Your task to perform on an android device: Open calendar and show me the third week of next month Image 0: 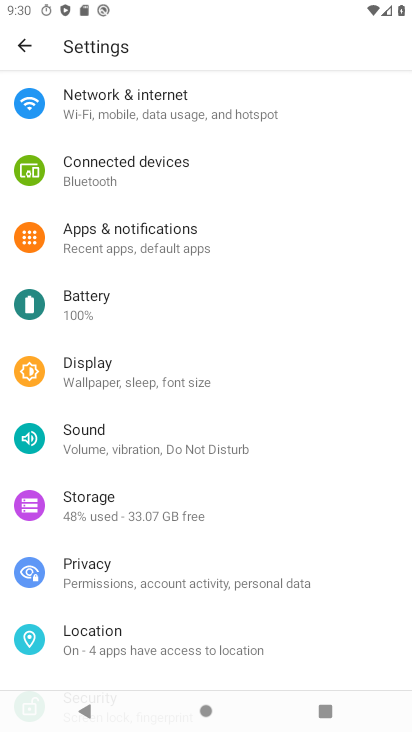
Step 0: click (18, 52)
Your task to perform on an android device: Open calendar and show me the third week of next month Image 1: 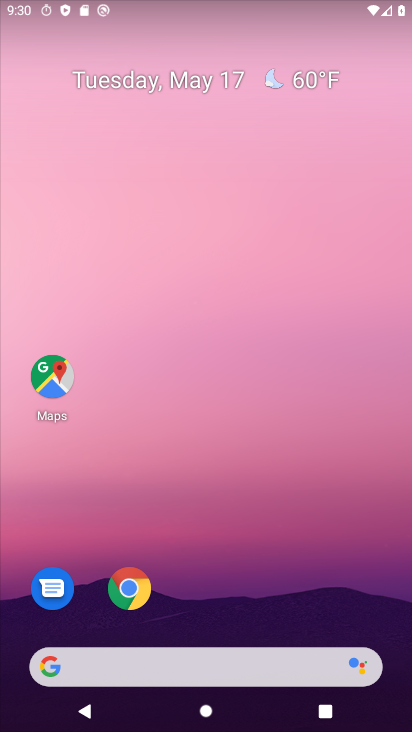
Step 1: drag from (284, 661) to (139, 233)
Your task to perform on an android device: Open calendar and show me the third week of next month Image 2: 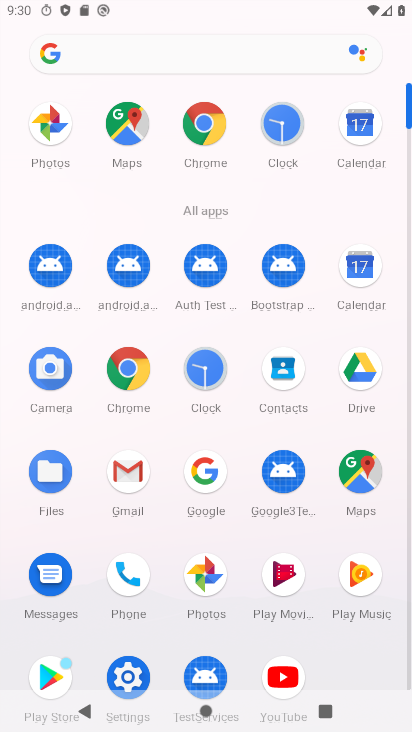
Step 2: click (357, 266)
Your task to perform on an android device: Open calendar and show me the third week of next month Image 3: 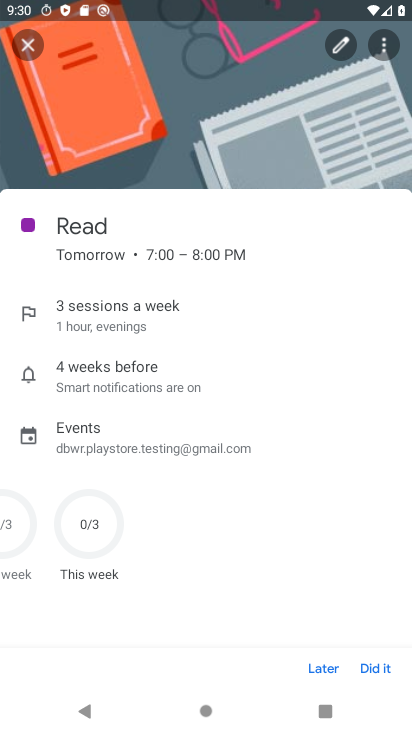
Step 3: click (33, 50)
Your task to perform on an android device: Open calendar and show me the third week of next month Image 4: 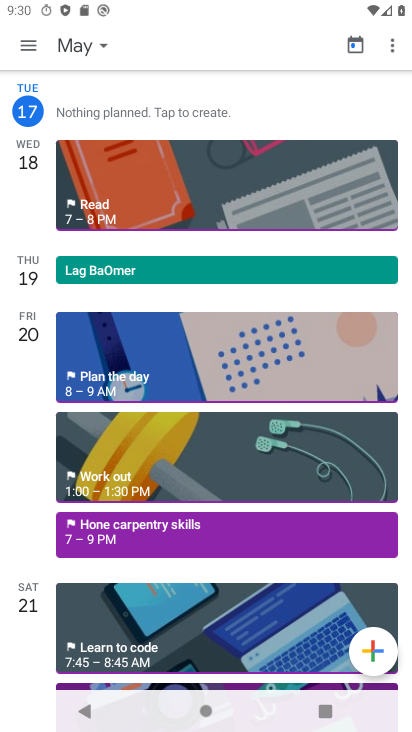
Step 4: click (105, 47)
Your task to perform on an android device: Open calendar and show me the third week of next month Image 5: 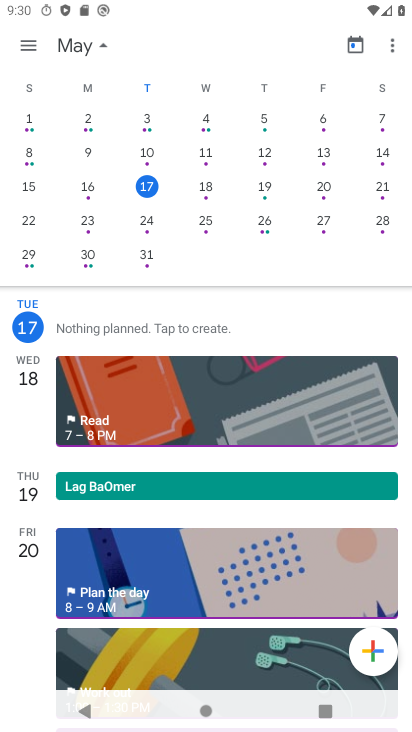
Step 5: drag from (198, 168) to (21, 144)
Your task to perform on an android device: Open calendar and show me the third week of next month Image 6: 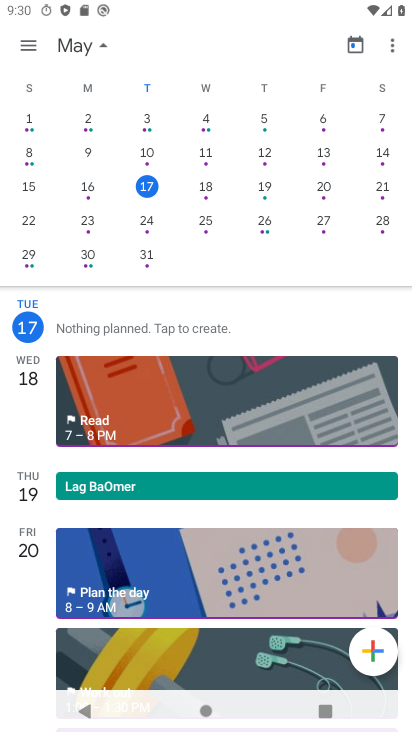
Step 6: drag from (220, 179) to (85, 200)
Your task to perform on an android device: Open calendar and show me the third week of next month Image 7: 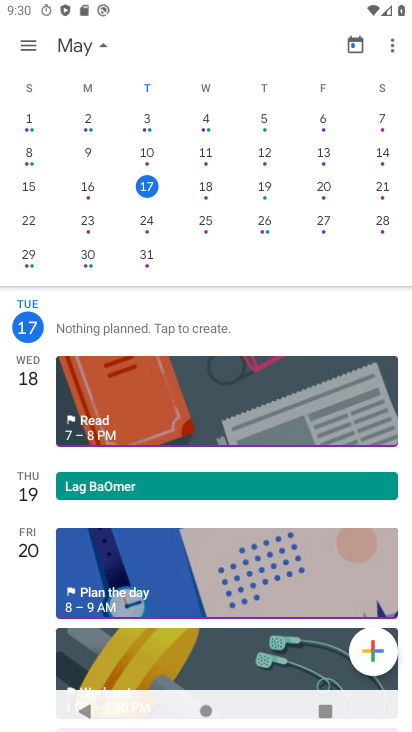
Step 7: drag from (238, 161) to (17, 267)
Your task to perform on an android device: Open calendar and show me the third week of next month Image 8: 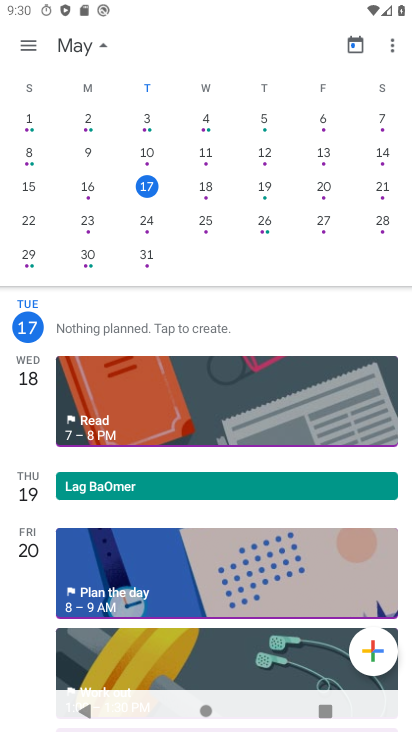
Step 8: drag from (251, 168) to (81, 229)
Your task to perform on an android device: Open calendar and show me the third week of next month Image 9: 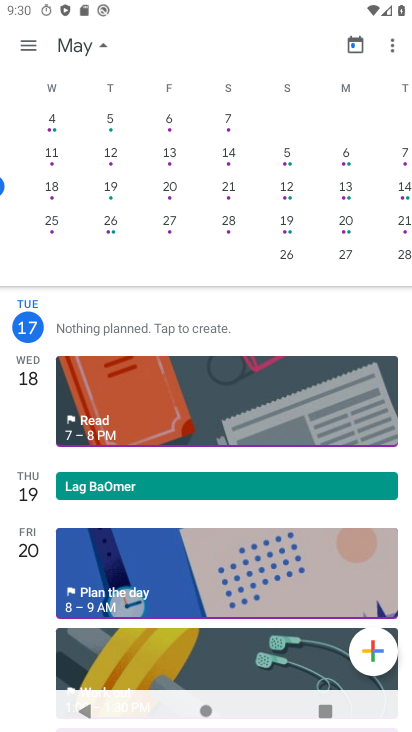
Step 9: drag from (235, 159) to (43, 169)
Your task to perform on an android device: Open calendar and show me the third week of next month Image 10: 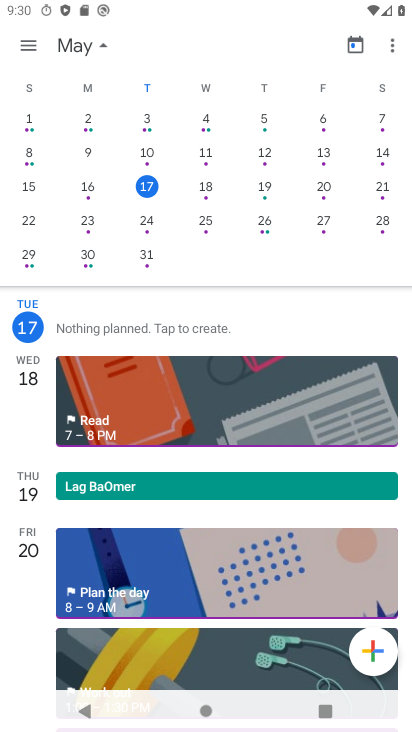
Step 10: drag from (247, 167) to (69, 236)
Your task to perform on an android device: Open calendar and show me the third week of next month Image 11: 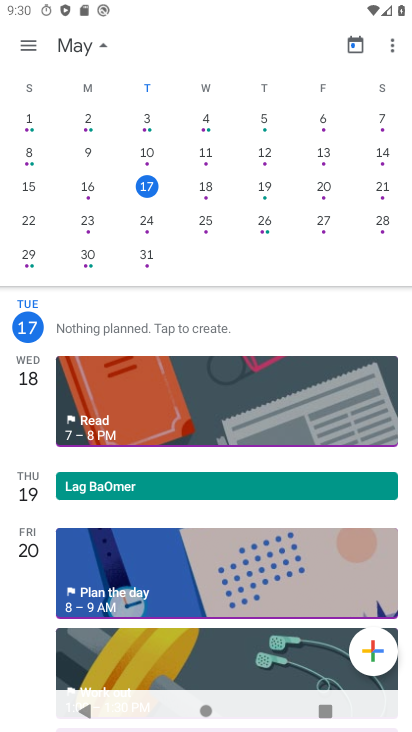
Step 11: drag from (236, 163) to (37, 155)
Your task to perform on an android device: Open calendar and show me the third week of next month Image 12: 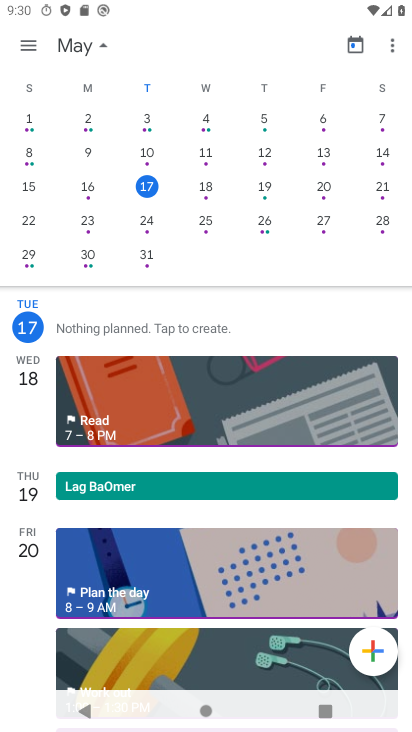
Step 12: drag from (236, 168) to (24, 119)
Your task to perform on an android device: Open calendar and show me the third week of next month Image 13: 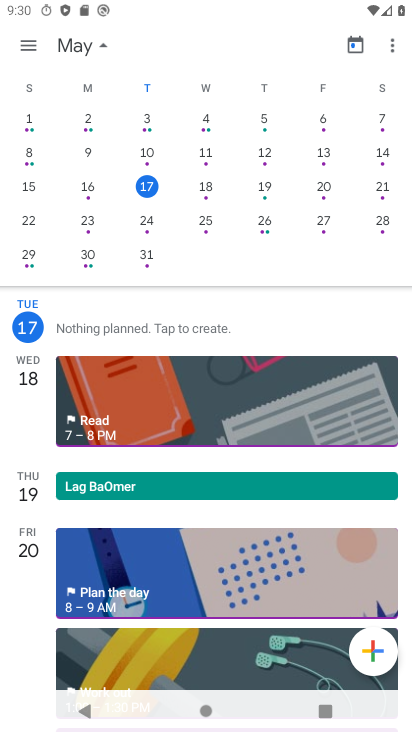
Step 13: drag from (241, 162) to (27, 181)
Your task to perform on an android device: Open calendar and show me the third week of next month Image 14: 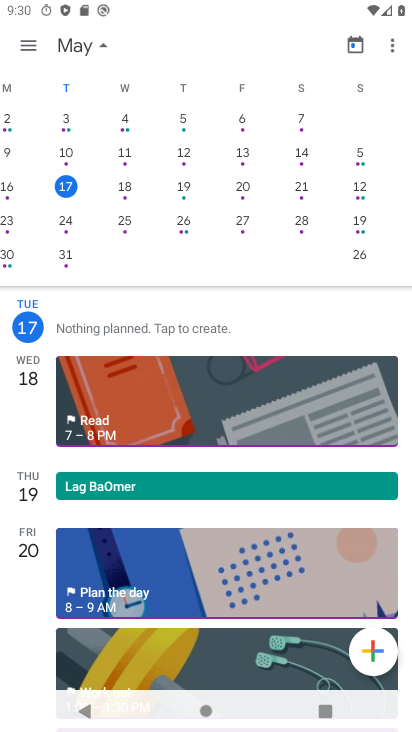
Step 14: click (5, 217)
Your task to perform on an android device: Open calendar and show me the third week of next month Image 15: 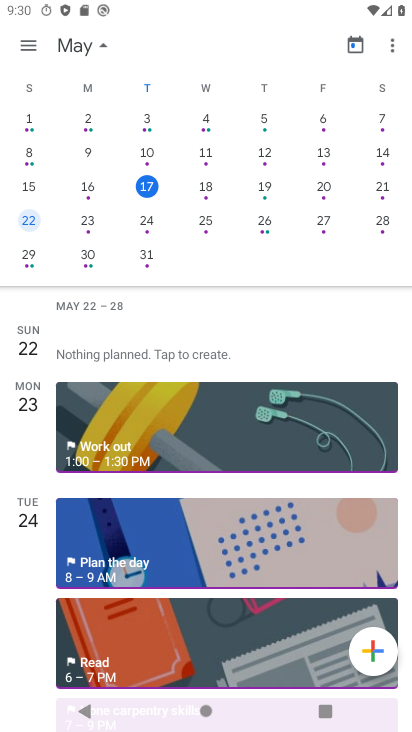
Step 15: drag from (239, 177) to (1, 224)
Your task to perform on an android device: Open calendar and show me the third week of next month Image 16: 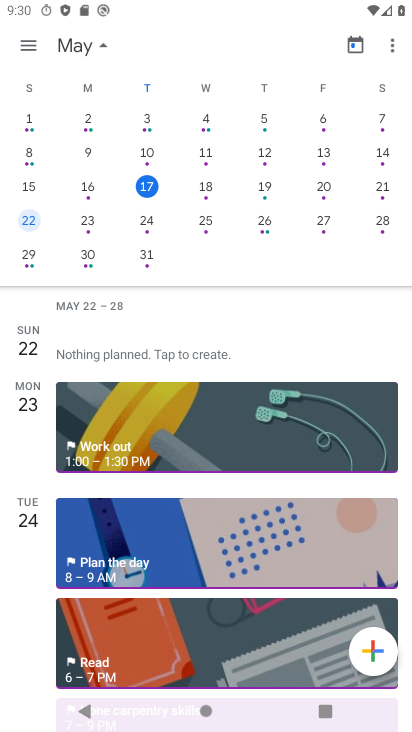
Step 16: drag from (215, 191) to (17, 255)
Your task to perform on an android device: Open calendar and show me the third week of next month Image 17: 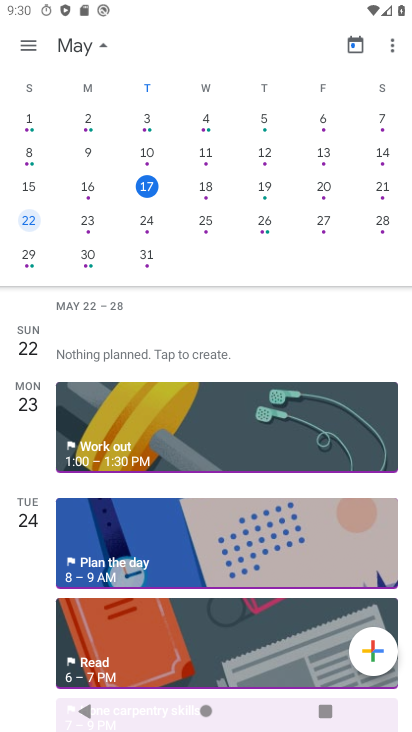
Step 17: drag from (207, 183) to (89, 294)
Your task to perform on an android device: Open calendar and show me the third week of next month Image 18: 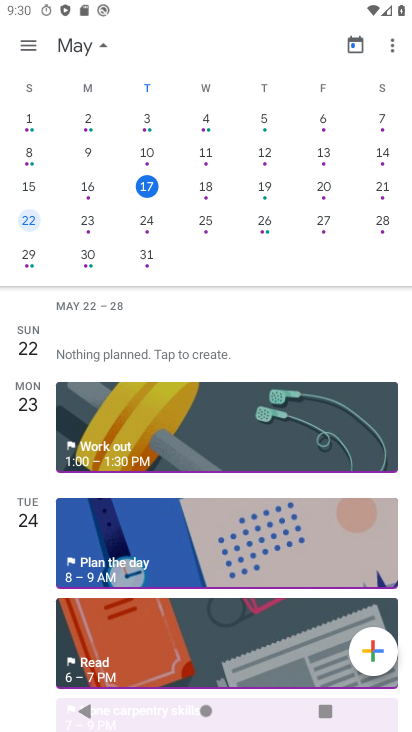
Step 18: drag from (208, 191) to (20, 219)
Your task to perform on an android device: Open calendar and show me the third week of next month Image 19: 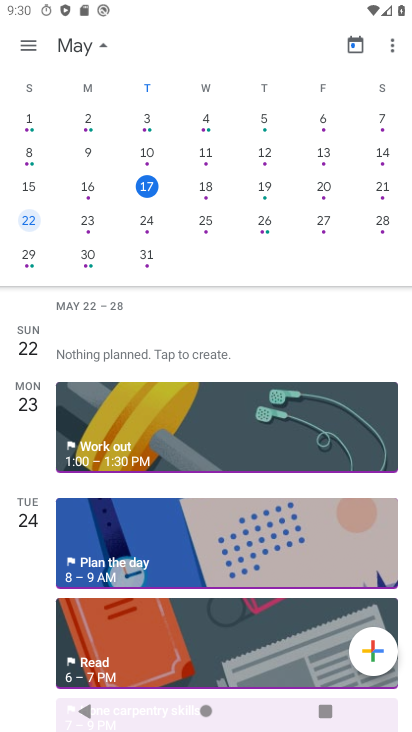
Step 19: drag from (194, 170) to (63, 155)
Your task to perform on an android device: Open calendar and show me the third week of next month Image 20: 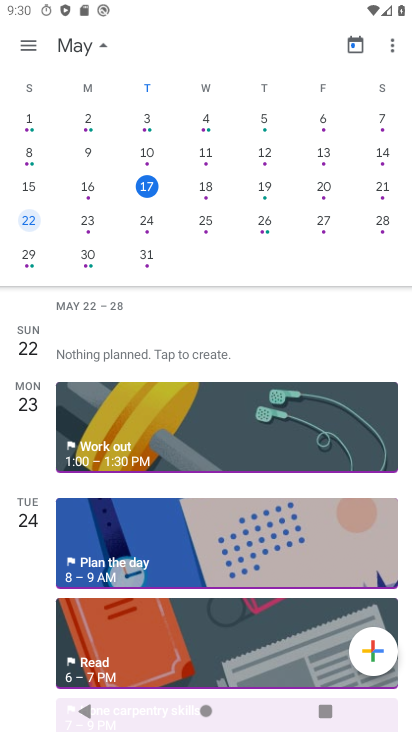
Step 20: drag from (202, 171) to (31, 185)
Your task to perform on an android device: Open calendar and show me the third week of next month Image 21: 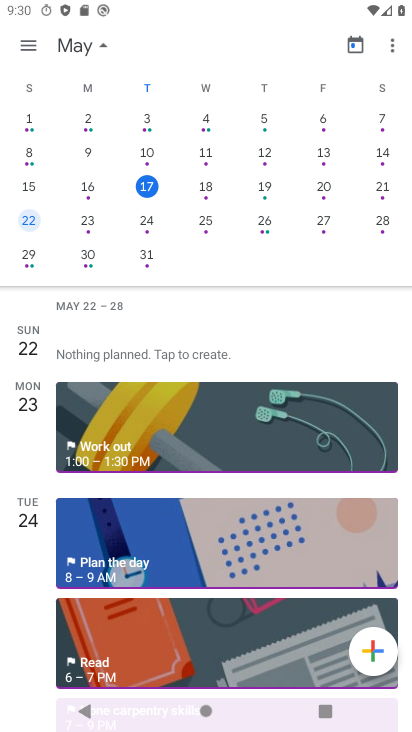
Step 21: drag from (259, 187) to (37, 222)
Your task to perform on an android device: Open calendar and show me the third week of next month Image 22: 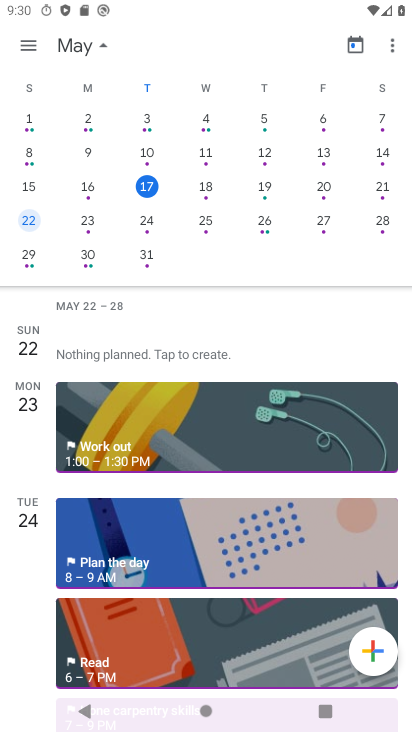
Step 22: drag from (195, 169) to (90, 190)
Your task to perform on an android device: Open calendar and show me the third week of next month Image 23: 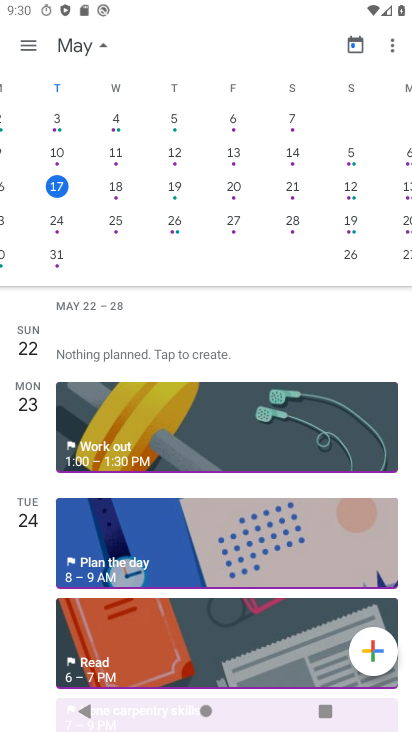
Step 23: drag from (49, 210) to (10, 231)
Your task to perform on an android device: Open calendar and show me the third week of next month Image 24: 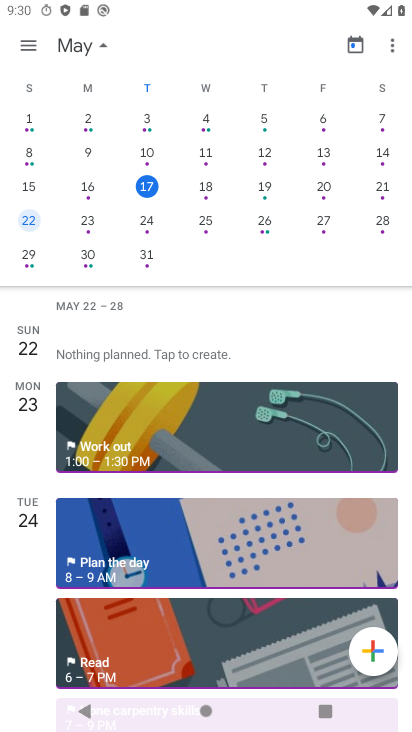
Step 24: drag from (11, 224) to (99, 139)
Your task to perform on an android device: Open calendar and show me the third week of next month Image 25: 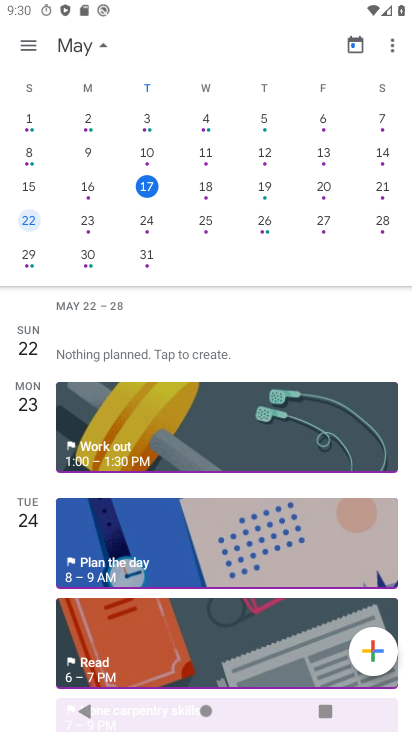
Step 25: drag from (239, 174) to (50, 246)
Your task to perform on an android device: Open calendar and show me the third week of next month Image 26: 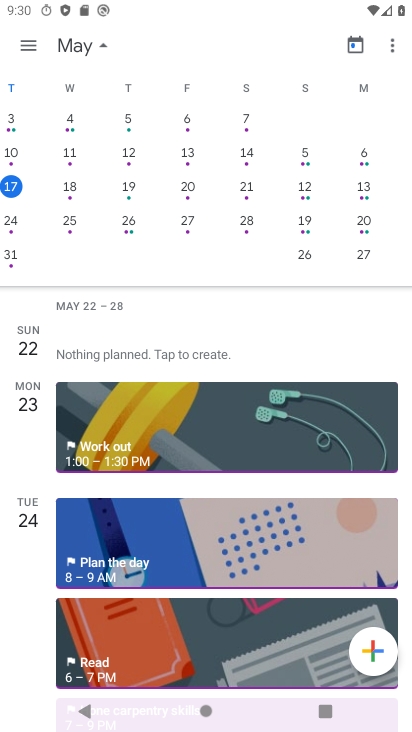
Step 26: drag from (168, 186) to (47, 185)
Your task to perform on an android device: Open calendar and show me the third week of next month Image 27: 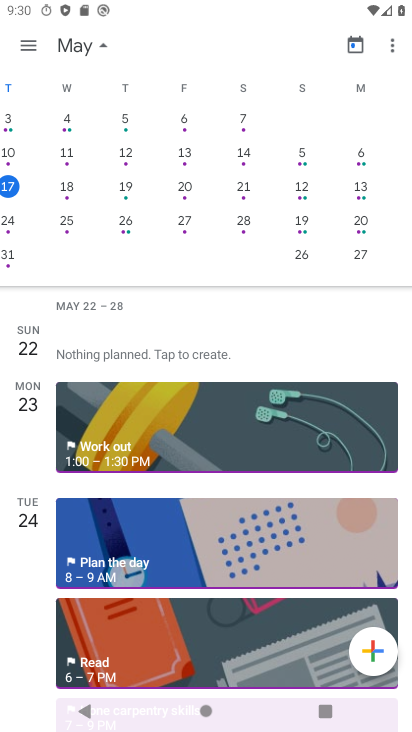
Step 27: drag from (228, 172) to (21, 175)
Your task to perform on an android device: Open calendar and show me the third week of next month Image 28: 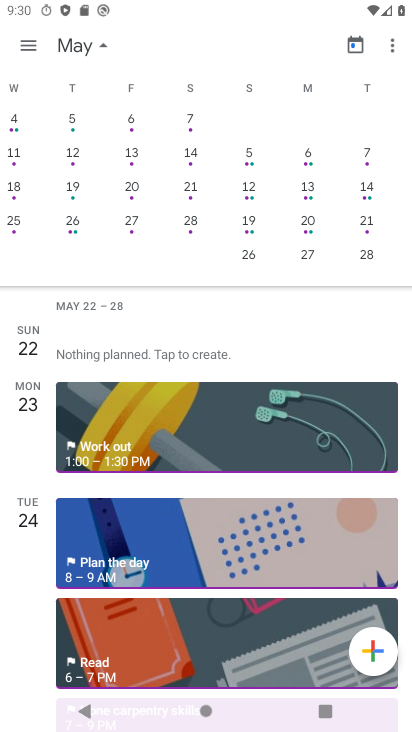
Step 28: drag from (104, 156) to (1, 238)
Your task to perform on an android device: Open calendar and show me the third week of next month Image 29: 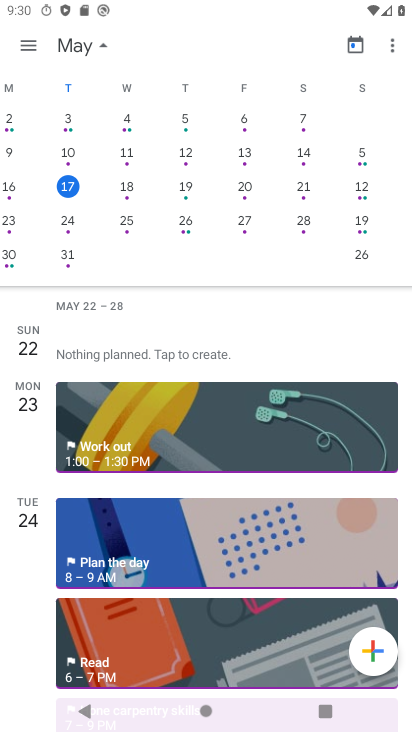
Step 29: drag from (118, 213) to (111, 165)
Your task to perform on an android device: Open calendar and show me the third week of next month Image 30: 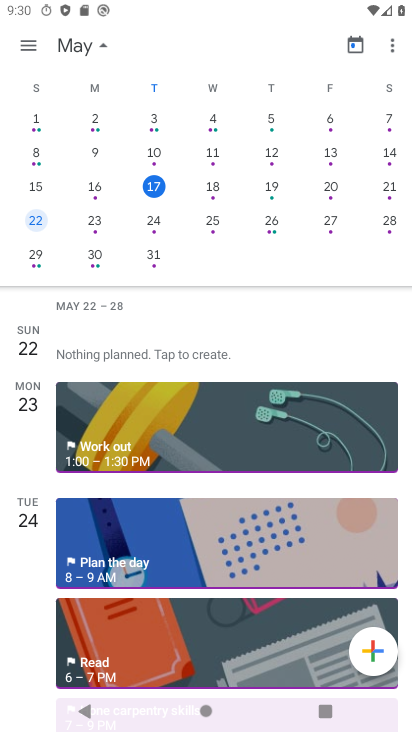
Step 30: drag from (203, 155) to (108, 198)
Your task to perform on an android device: Open calendar and show me the third week of next month Image 31: 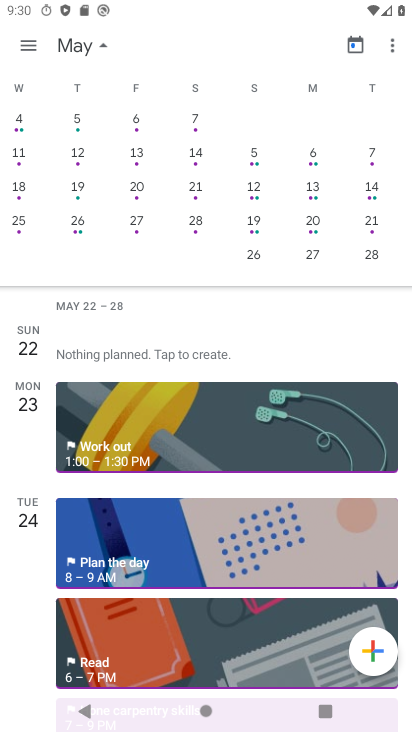
Step 31: drag from (245, 196) to (50, 160)
Your task to perform on an android device: Open calendar and show me the third week of next month Image 32: 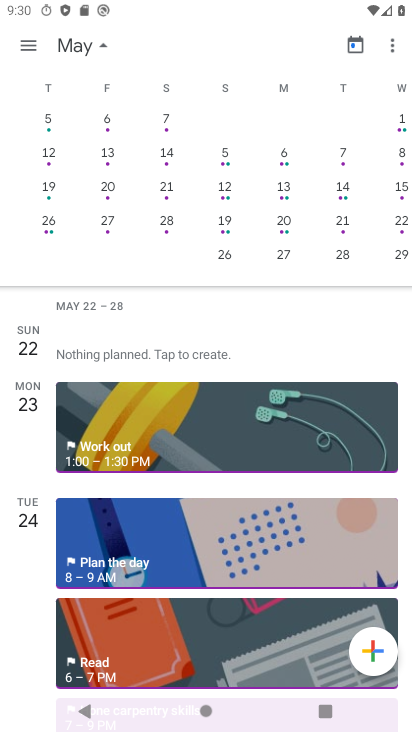
Step 32: drag from (232, 155) to (130, 196)
Your task to perform on an android device: Open calendar and show me the third week of next month Image 33: 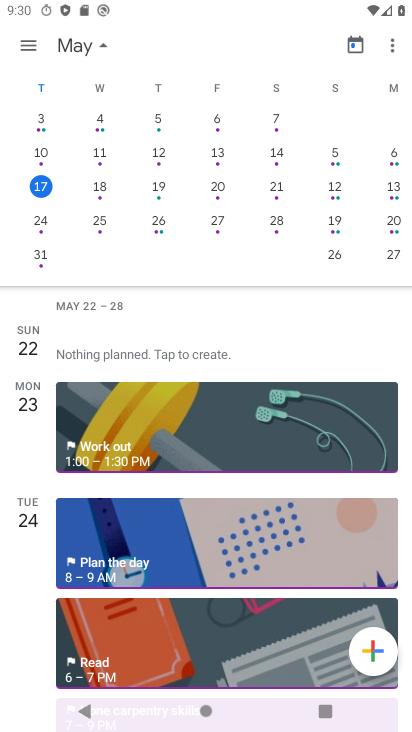
Step 33: drag from (247, 202) to (6, 187)
Your task to perform on an android device: Open calendar and show me the third week of next month Image 34: 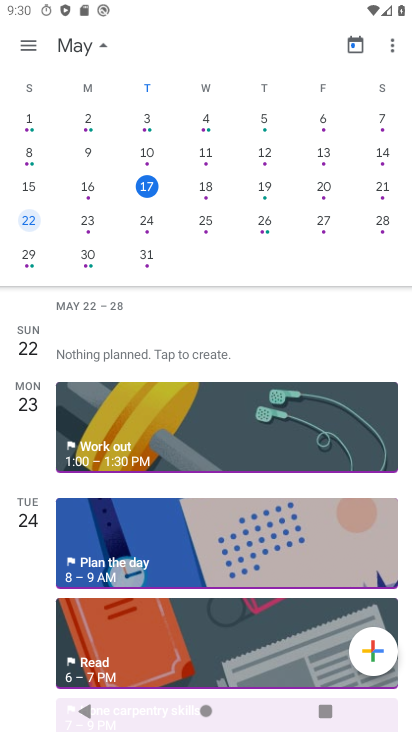
Step 34: drag from (6, 207) to (92, 204)
Your task to perform on an android device: Open calendar and show me the third week of next month Image 35: 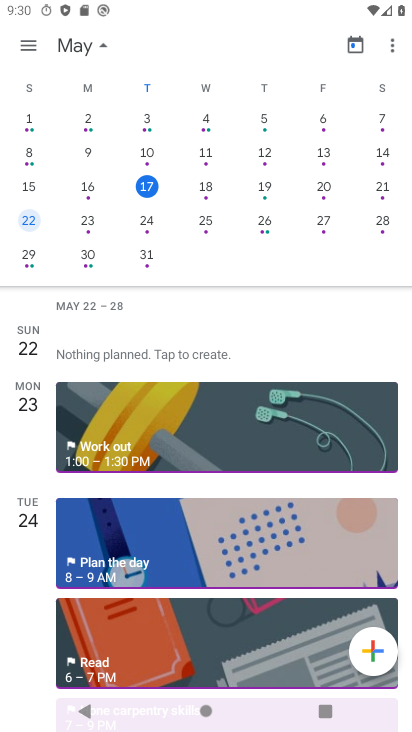
Step 35: drag from (220, 187) to (86, 207)
Your task to perform on an android device: Open calendar and show me the third week of next month Image 36: 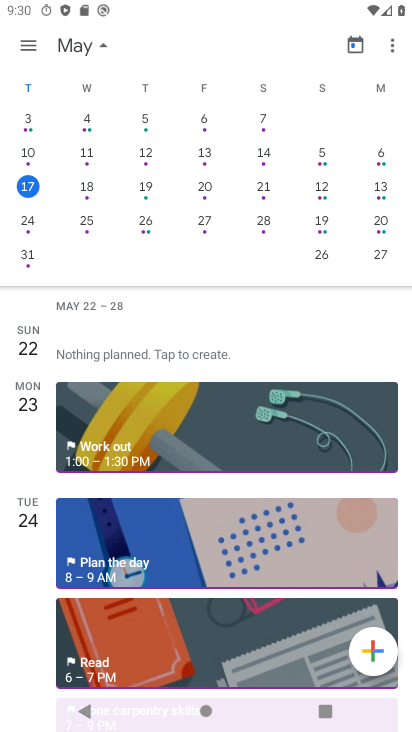
Step 36: drag from (140, 197) to (97, 202)
Your task to perform on an android device: Open calendar and show me the third week of next month Image 37: 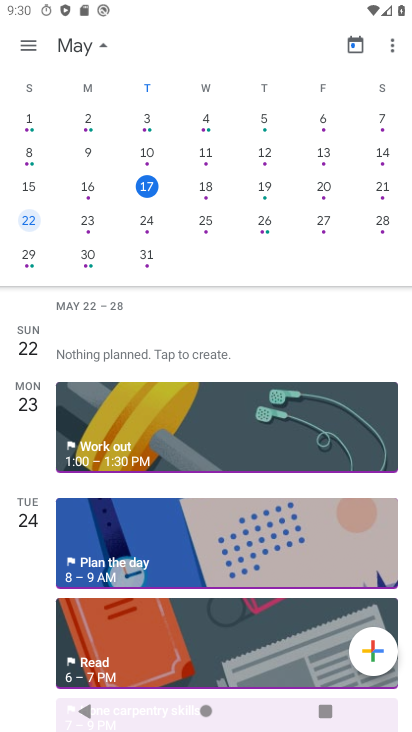
Step 37: click (123, 191)
Your task to perform on an android device: Open calendar and show me the third week of next month Image 38: 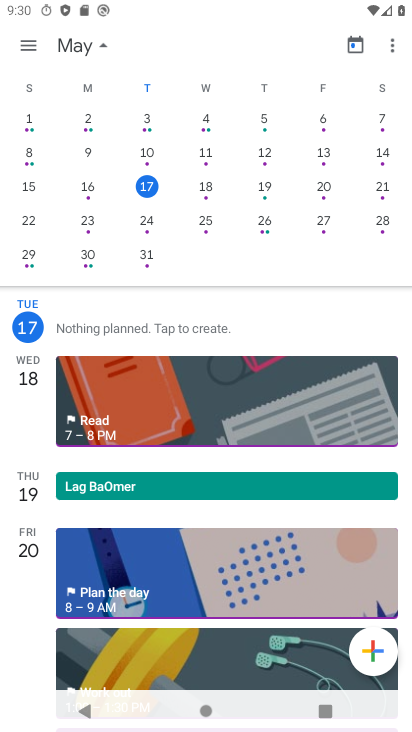
Step 38: drag from (229, 173) to (63, 227)
Your task to perform on an android device: Open calendar and show me the third week of next month Image 39: 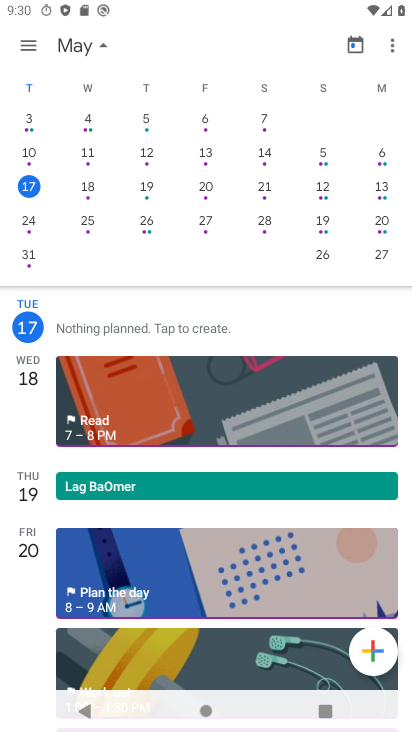
Step 39: drag from (262, 148) to (0, 193)
Your task to perform on an android device: Open calendar and show me the third week of next month Image 40: 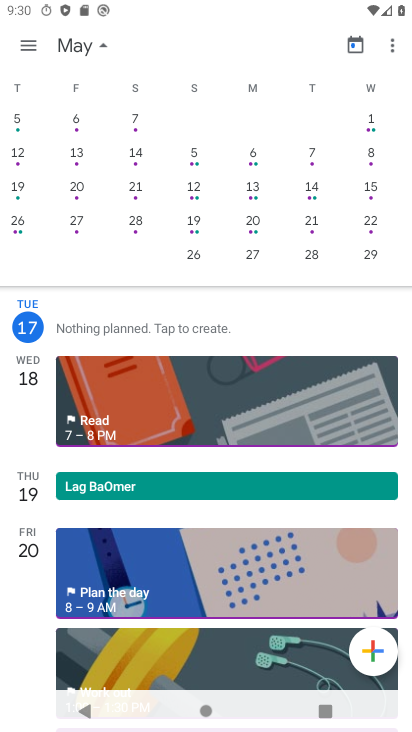
Step 40: drag from (280, 149) to (32, 158)
Your task to perform on an android device: Open calendar and show me the third week of next month Image 41: 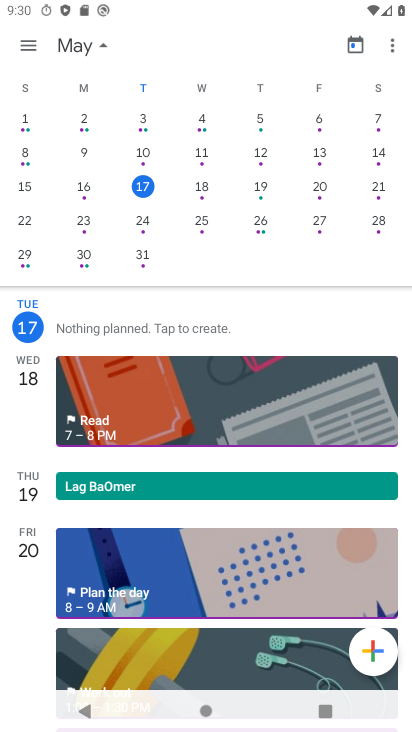
Step 41: drag from (180, 138) to (10, 190)
Your task to perform on an android device: Open calendar and show me the third week of next month Image 42: 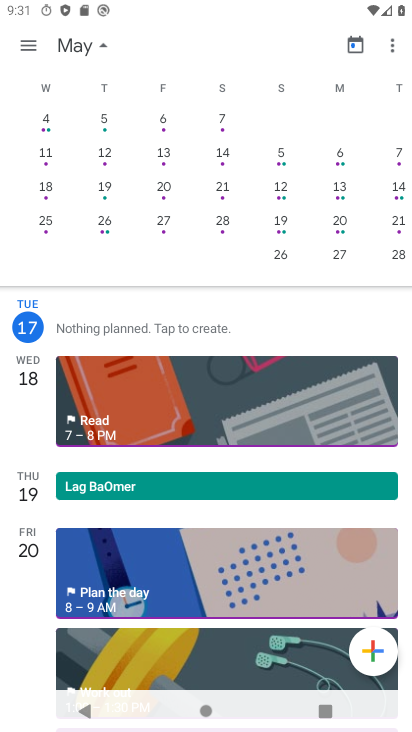
Step 42: drag from (152, 225) to (41, 199)
Your task to perform on an android device: Open calendar and show me the third week of next month Image 43: 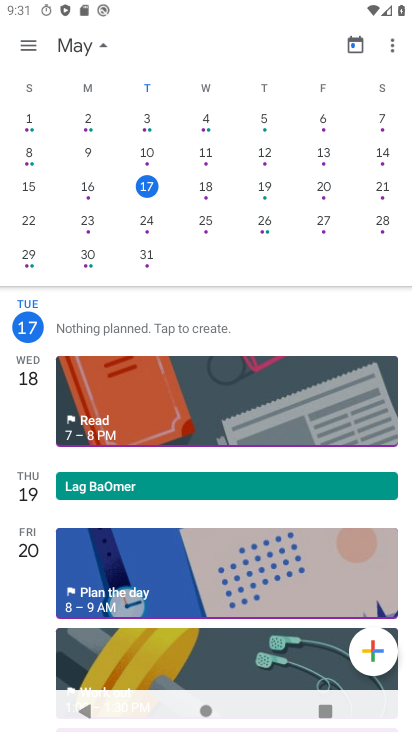
Step 43: drag from (276, 193) to (44, 261)
Your task to perform on an android device: Open calendar and show me the third week of next month Image 44: 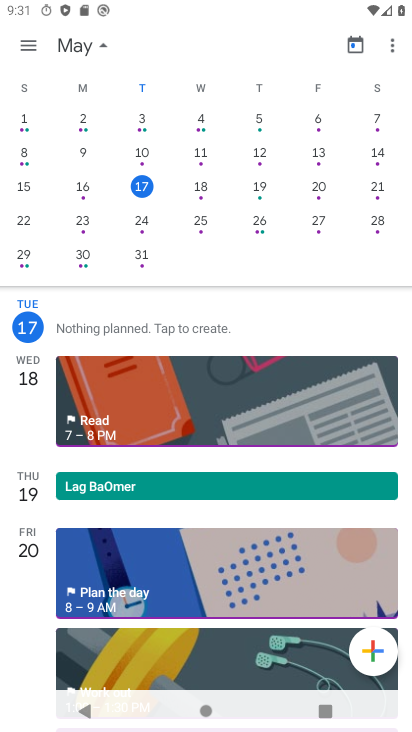
Step 44: drag from (269, 212) to (27, 279)
Your task to perform on an android device: Open calendar and show me the third week of next month Image 45: 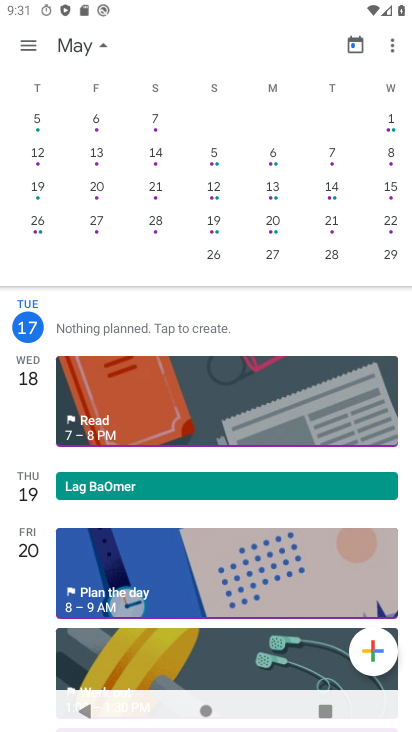
Step 45: click (13, 221)
Your task to perform on an android device: Open calendar and show me the third week of next month Image 46: 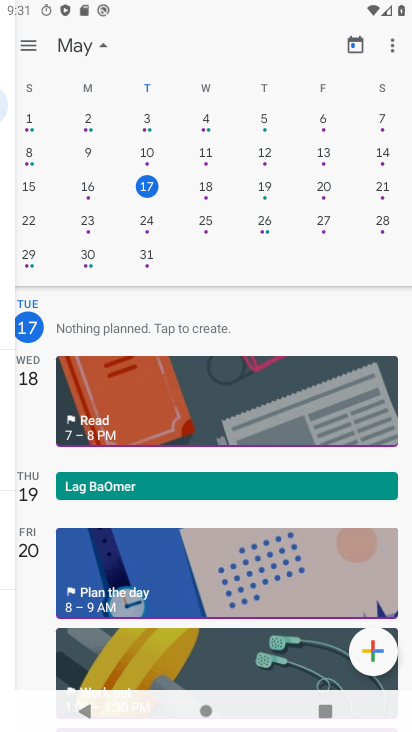
Step 46: click (47, 172)
Your task to perform on an android device: Open calendar and show me the third week of next month Image 47: 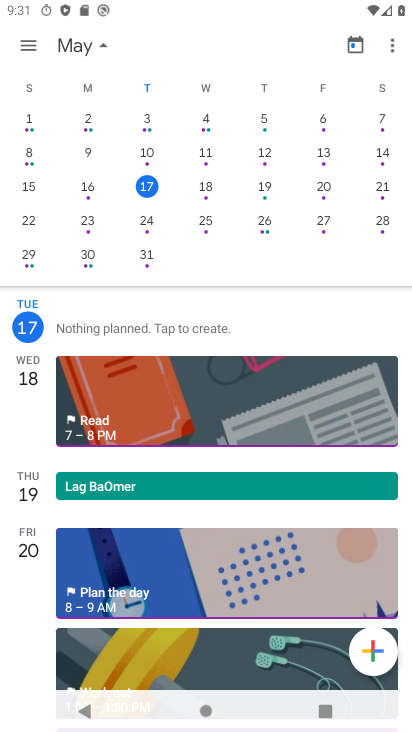
Step 47: drag from (257, 156) to (51, 179)
Your task to perform on an android device: Open calendar and show me the third week of next month Image 48: 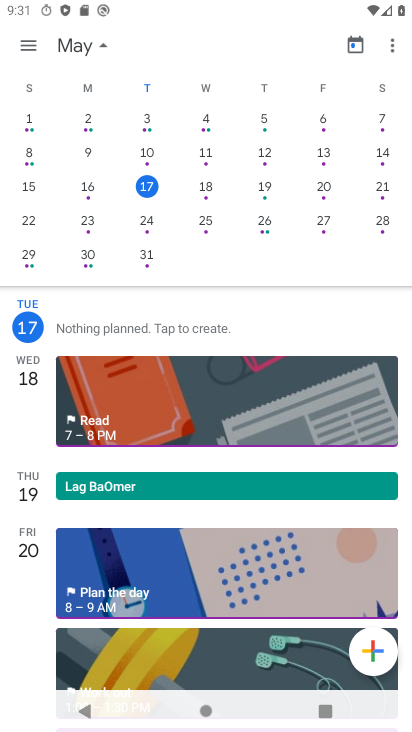
Step 48: drag from (355, 174) to (0, 181)
Your task to perform on an android device: Open calendar and show me the third week of next month Image 49: 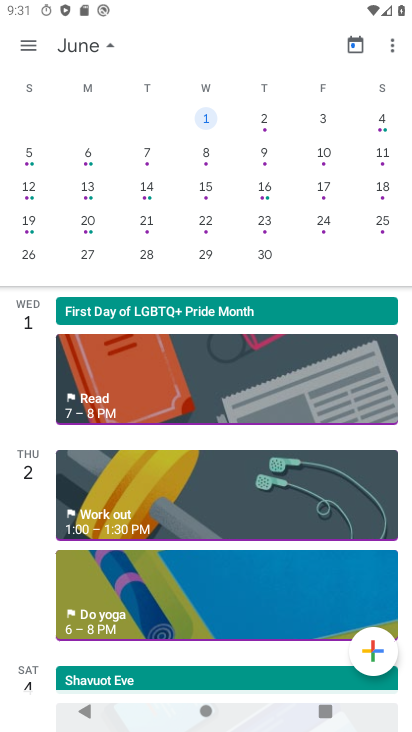
Step 49: drag from (277, 159) to (5, 275)
Your task to perform on an android device: Open calendar and show me the third week of next month Image 50: 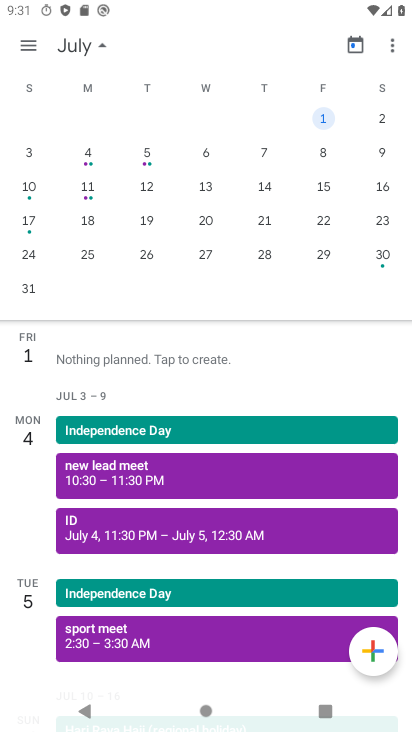
Step 50: drag from (132, 205) to (389, 207)
Your task to perform on an android device: Open calendar and show me the third week of next month Image 51: 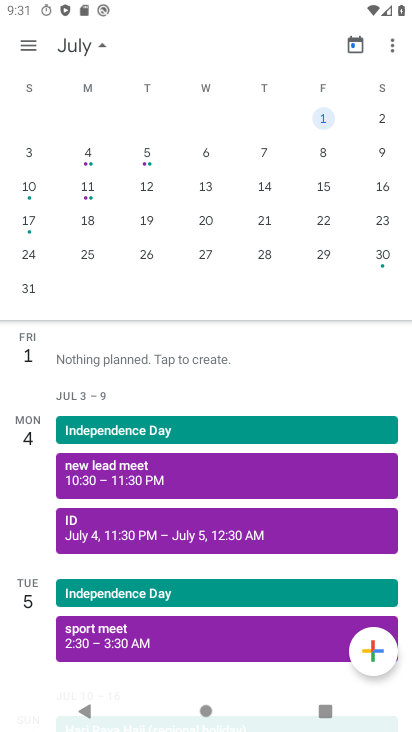
Step 51: drag from (86, 184) to (394, 231)
Your task to perform on an android device: Open calendar and show me the third week of next month Image 52: 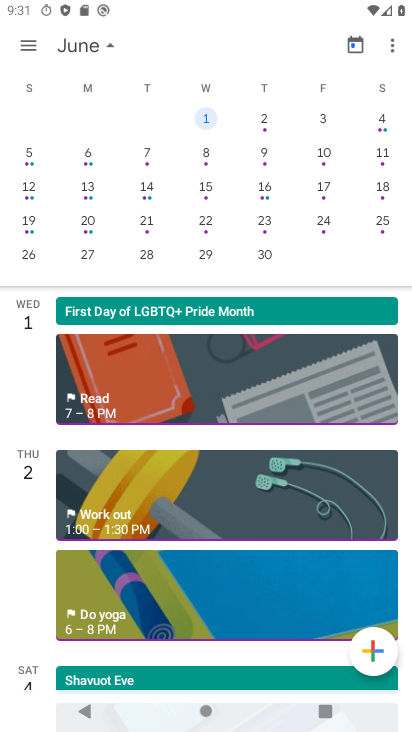
Step 52: click (206, 181)
Your task to perform on an android device: Open calendar and show me the third week of next month Image 53: 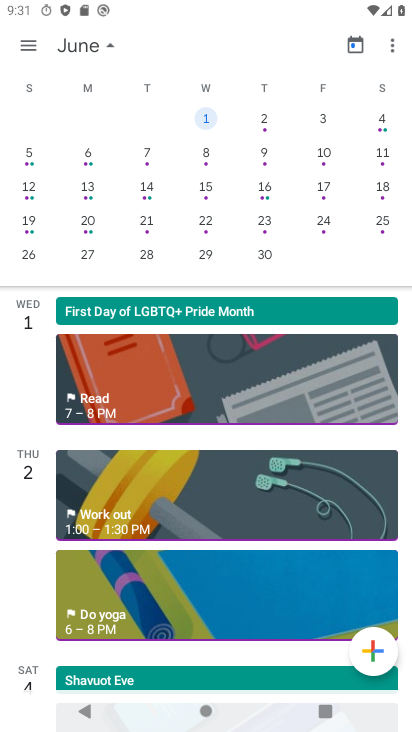
Step 53: click (206, 184)
Your task to perform on an android device: Open calendar and show me the third week of next month Image 54: 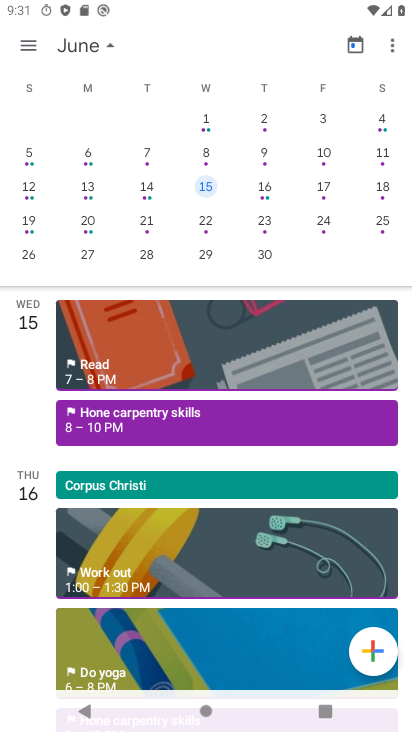
Step 54: click (206, 184)
Your task to perform on an android device: Open calendar and show me the third week of next month Image 55: 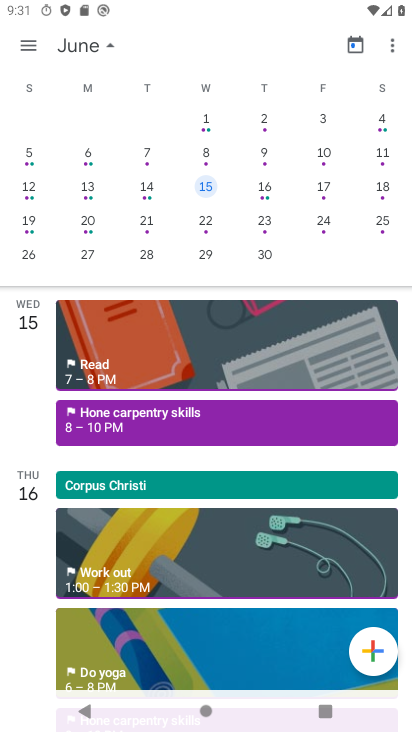
Step 55: click (206, 183)
Your task to perform on an android device: Open calendar and show me the third week of next month Image 56: 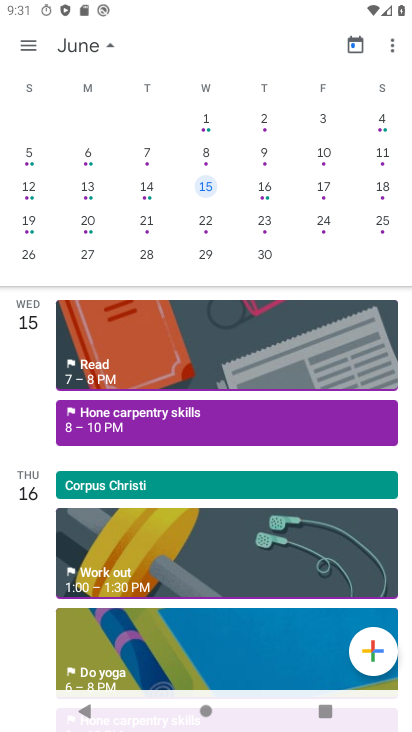
Step 56: click (206, 180)
Your task to perform on an android device: Open calendar and show me the third week of next month Image 57: 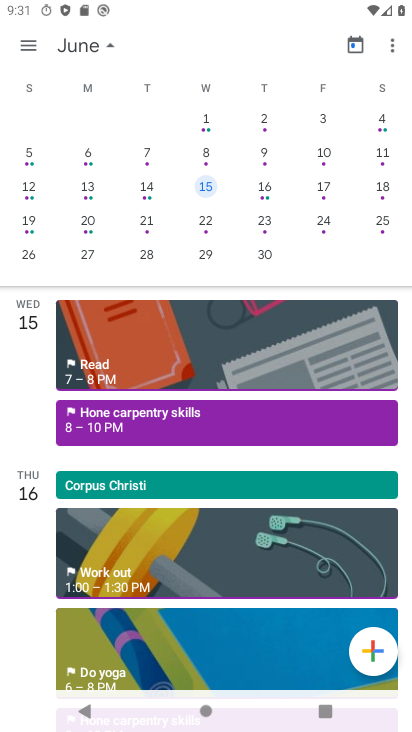
Step 57: task complete